Your task to perform on an android device: toggle notifications settings in the gmail app Image 0: 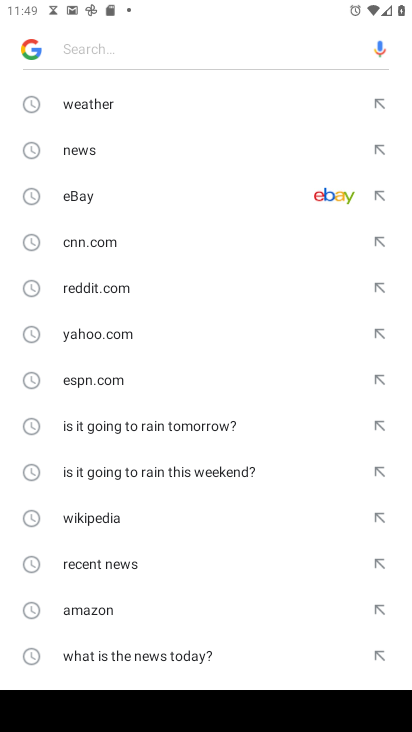
Step 0: press home button
Your task to perform on an android device: toggle notifications settings in the gmail app Image 1: 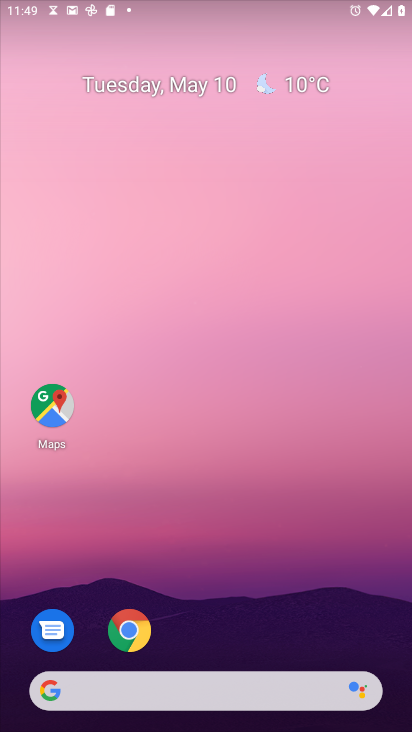
Step 1: drag from (270, 515) to (280, 70)
Your task to perform on an android device: toggle notifications settings in the gmail app Image 2: 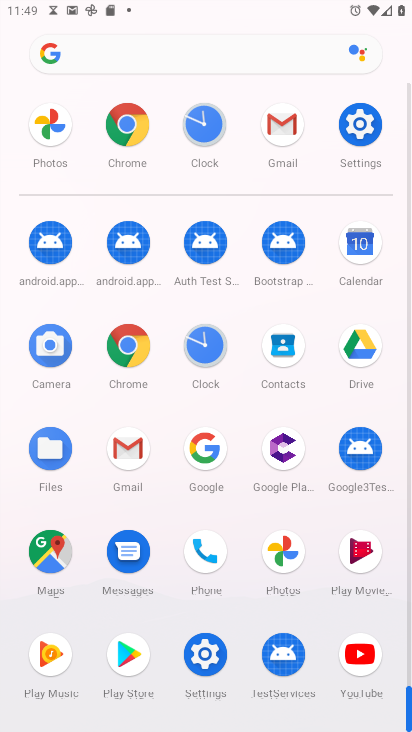
Step 2: click (127, 455)
Your task to perform on an android device: toggle notifications settings in the gmail app Image 3: 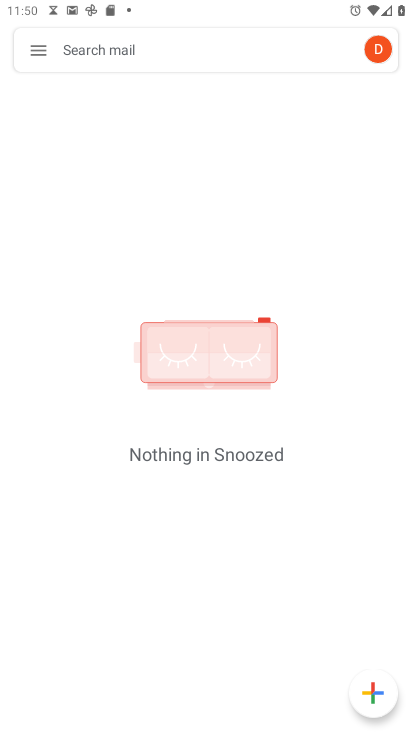
Step 3: click (33, 40)
Your task to perform on an android device: toggle notifications settings in the gmail app Image 4: 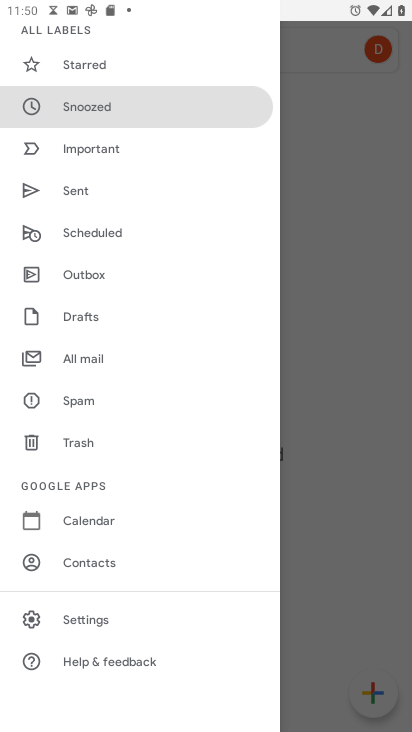
Step 4: click (96, 614)
Your task to perform on an android device: toggle notifications settings in the gmail app Image 5: 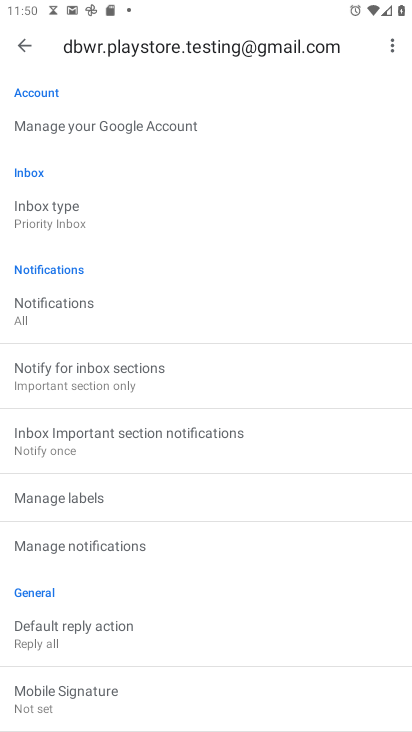
Step 5: click (126, 541)
Your task to perform on an android device: toggle notifications settings in the gmail app Image 6: 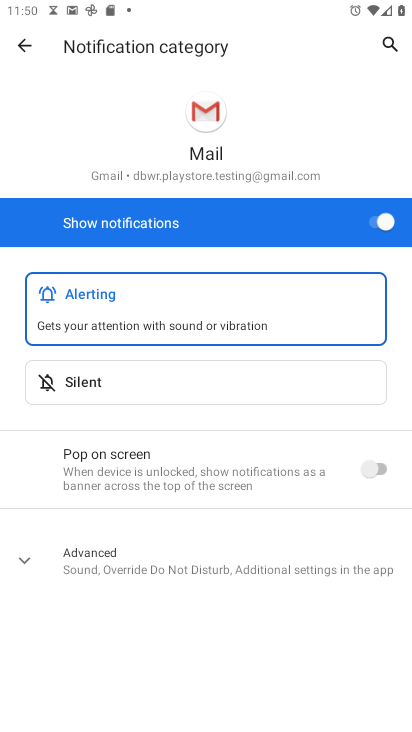
Step 6: click (383, 224)
Your task to perform on an android device: toggle notifications settings in the gmail app Image 7: 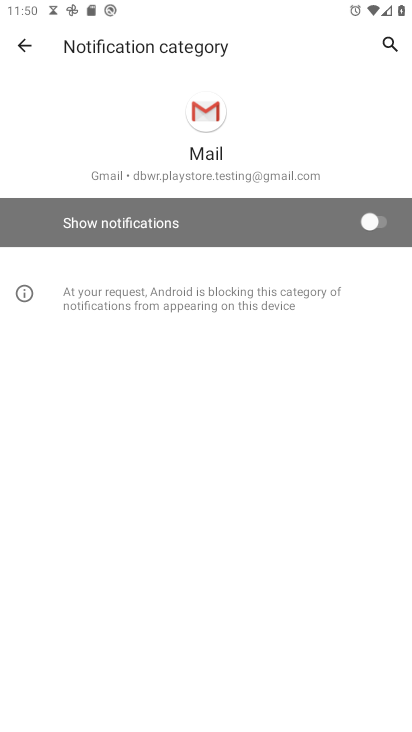
Step 7: task complete